Your task to perform on an android device: toggle location history Image 0: 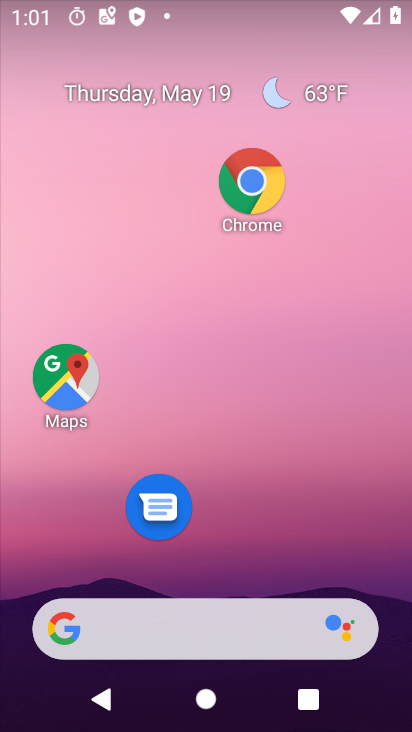
Step 0: drag from (207, 174) to (155, 3)
Your task to perform on an android device: toggle location history Image 1: 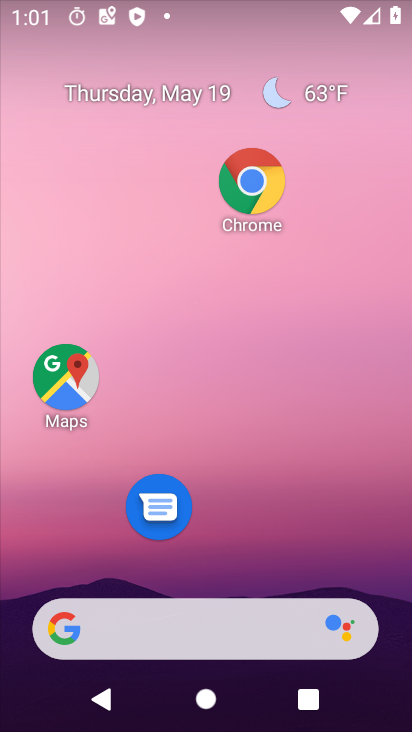
Step 1: drag from (273, 560) to (211, 112)
Your task to perform on an android device: toggle location history Image 2: 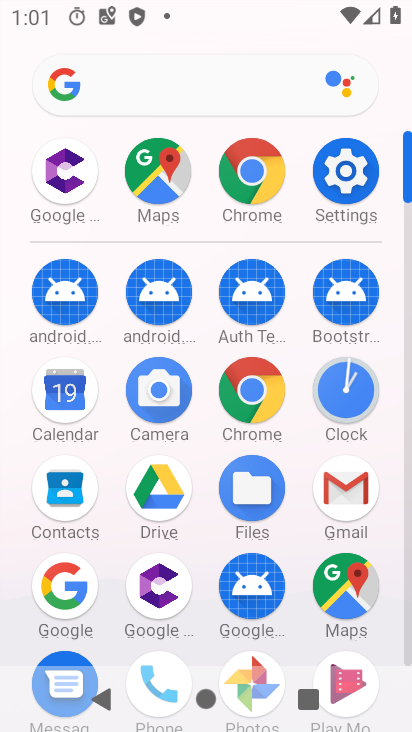
Step 2: click (351, 173)
Your task to perform on an android device: toggle location history Image 3: 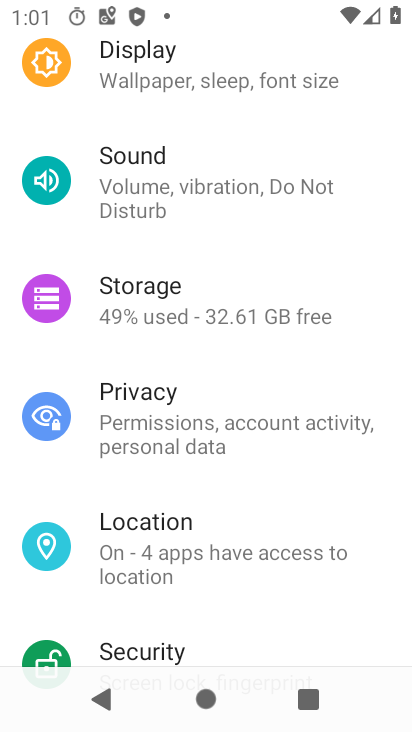
Step 3: click (190, 559)
Your task to perform on an android device: toggle location history Image 4: 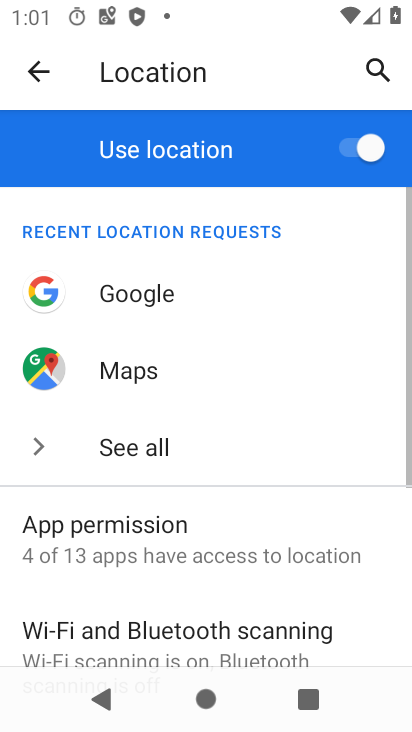
Step 4: drag from (194, 605) to (231, 260)
Your task to perform on an android device: toggle location history Image 5: 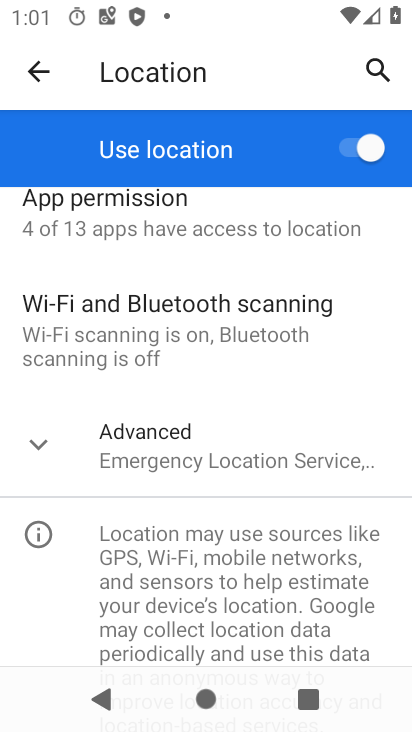
Step 5: click (112, 463)
Your task to perform on an android device: toggle location history Image 6: 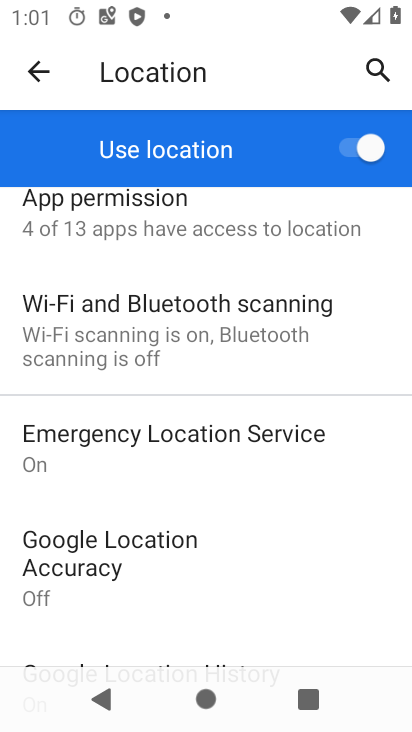
Step 6: drag from (148, 596) to (200, 250)
Your task to perform on an android device: toggle location history Image 7: 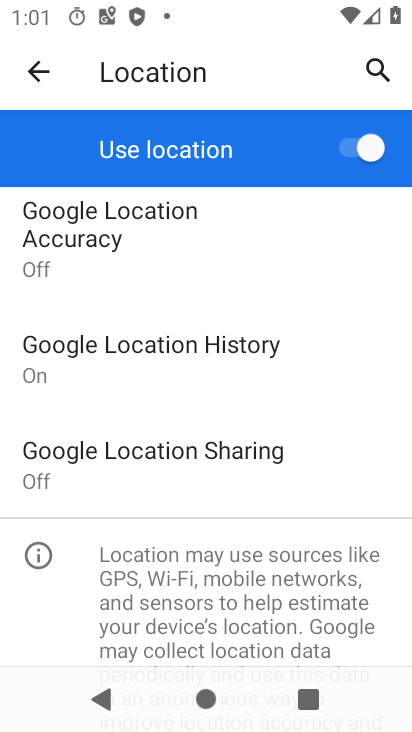
Step 7: click (183, 362)
Your task to perform on an android device: toggle location history Image 8: 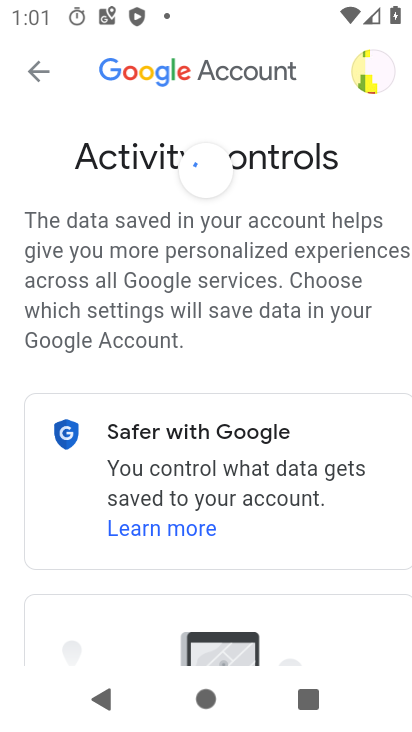
Step 8: drag from (226, 556) to (270, 207)
Your task to perform on an android device: toggle location history Image 9: 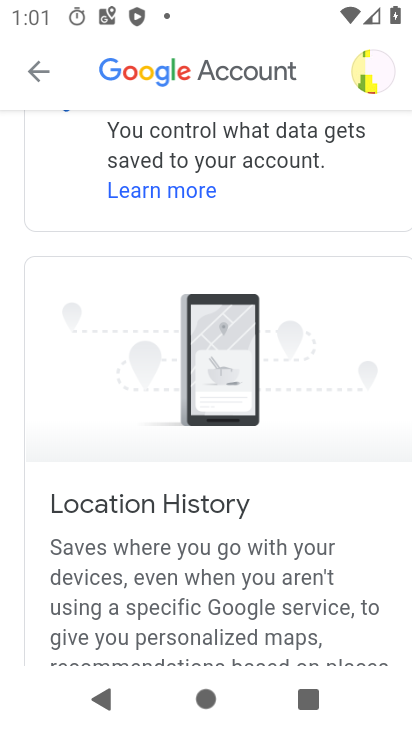
Step 9: drag from (309, 507) to (291, 267)
Your task to perform on an android device: toggle location history Image 10: 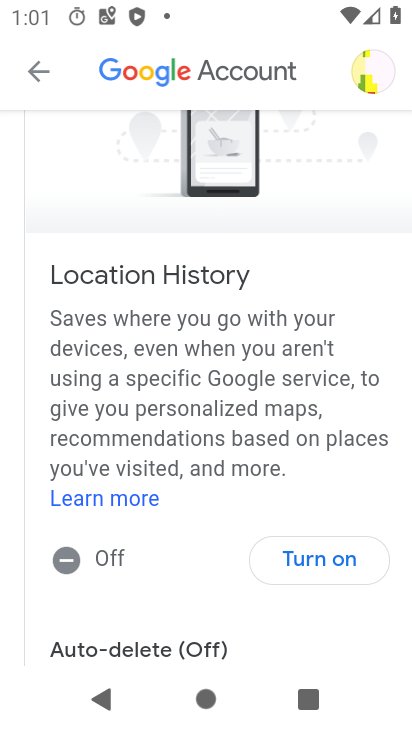
Step 10: click (199, 309)
Your task to perform on an android device: toggle location history Image 11: 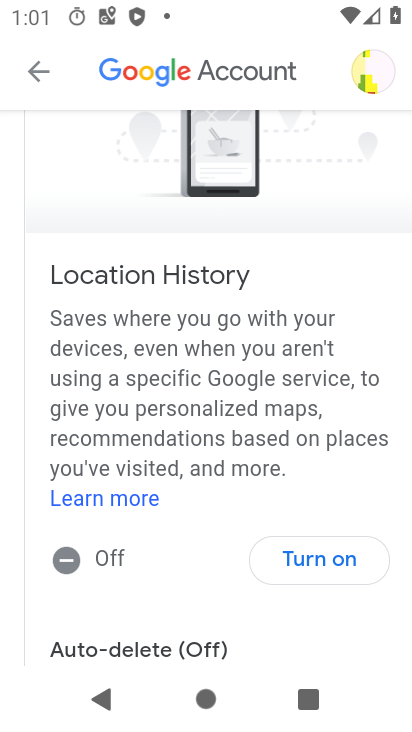
Step 11: click (305, 564)
Your task to perform on an android device: toggle location history Image 12: 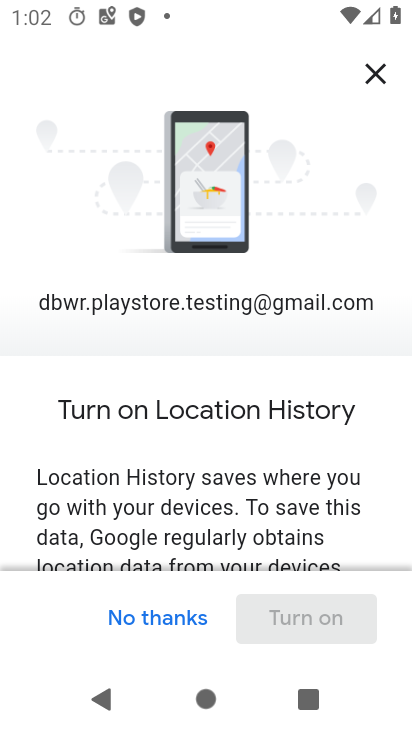
Step 12: drag from (245, 557) to (252, 72)
Your task to perform on an android device: toggle location history Image 13: 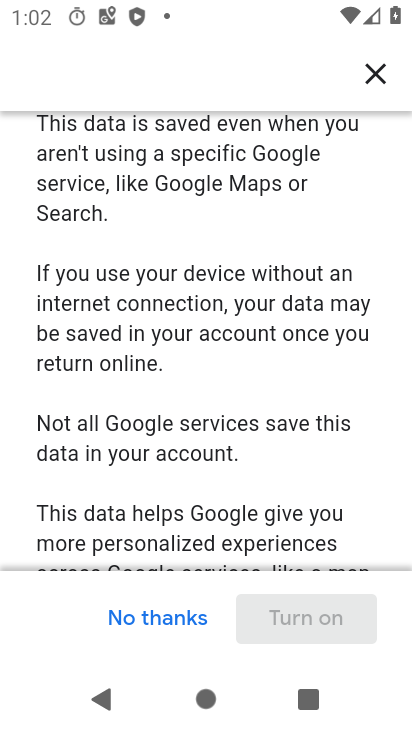
Step 13: click (200, 176)
Your task to perform on an android device: toggle location history Image 14: 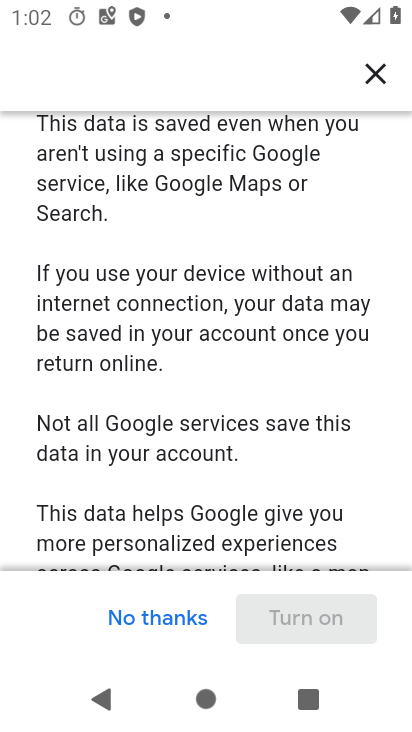
Step 14: drag from (218, 304) to (250, 143)
Your task to perform on an android device: toggle location history Image 15: 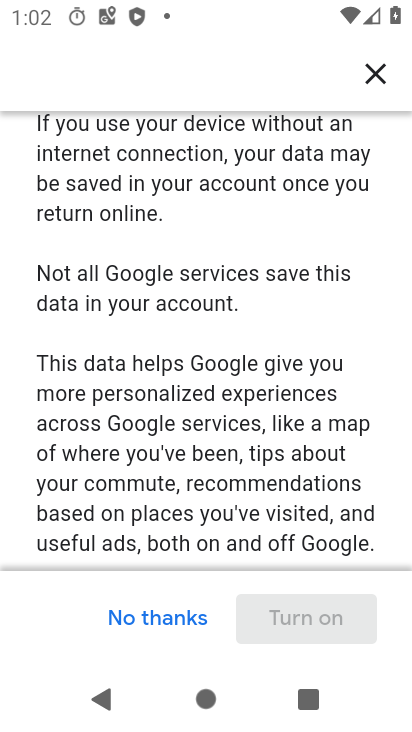
Step 15: drag from (233, 495) to (132, 67)
Your task to perform on an android device: toggle location history Image 16: 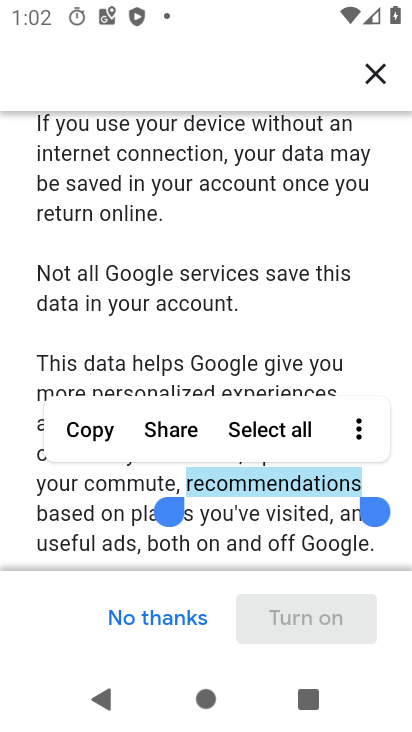
Step 16: click (97, 522)
Your task to perform on an android device: toggle location history Image 17: 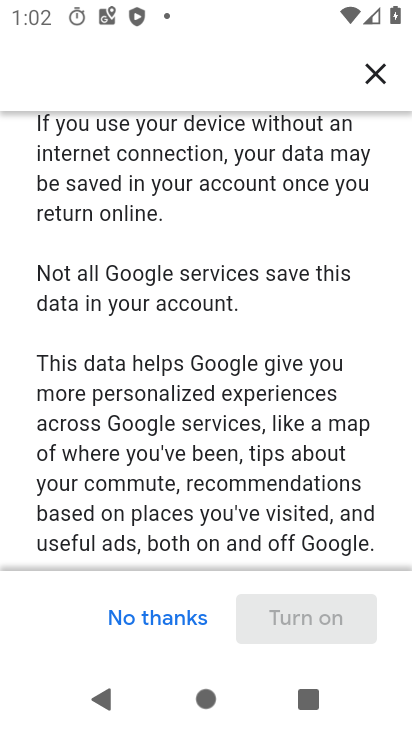
Step 17: drag from (127, 500) to (118, 138)
Your task to perform on an android device: toggle location history Image 18: 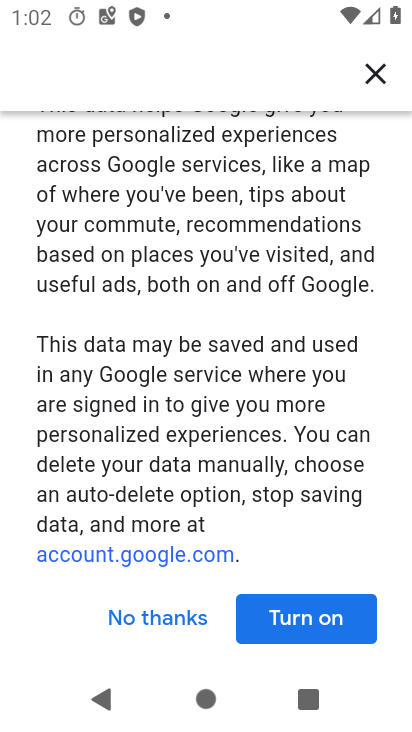
Step 18: drag from (270, 448) to (249, 352)
Your task to perform on an android device: toggle location history Image 19: 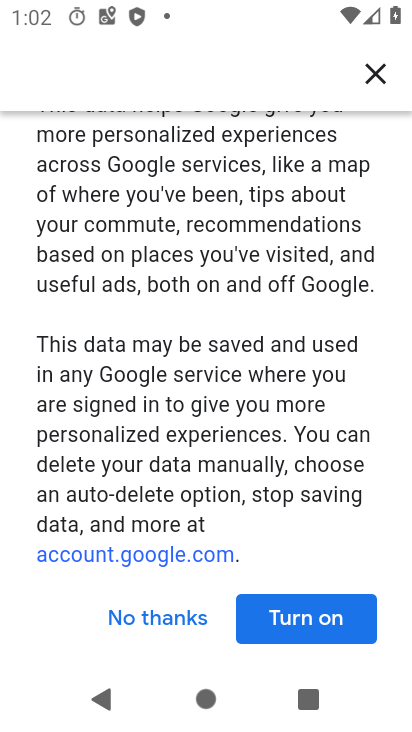
Step 19: click (268, 628)
Your task to perform on an android device: toggle location history Image 20: 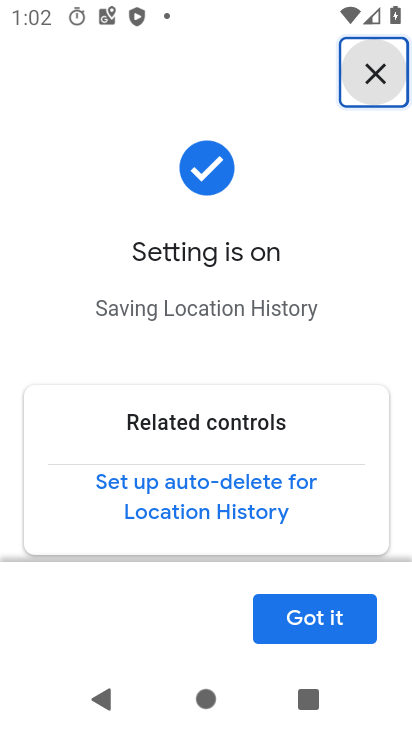
Step 20: click (315, 623)
Your task to perform on an android device: toggle location history Image 21: 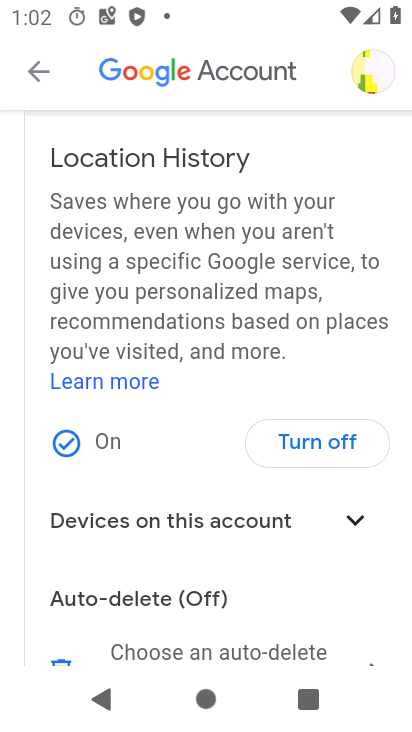
Step 21: task complete